Your task to perform on an android device: Search for vegetarian restaurants on Maps Image 0: 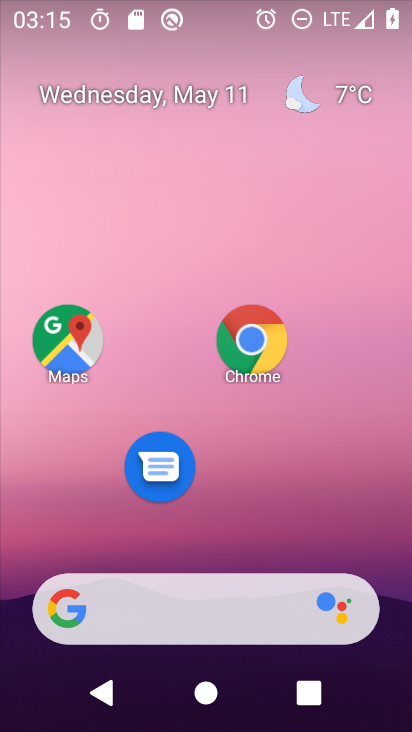
Step 0: press home button
Your task to perform on an android device: Search for vegetarian restaurants on Maps Image 1: 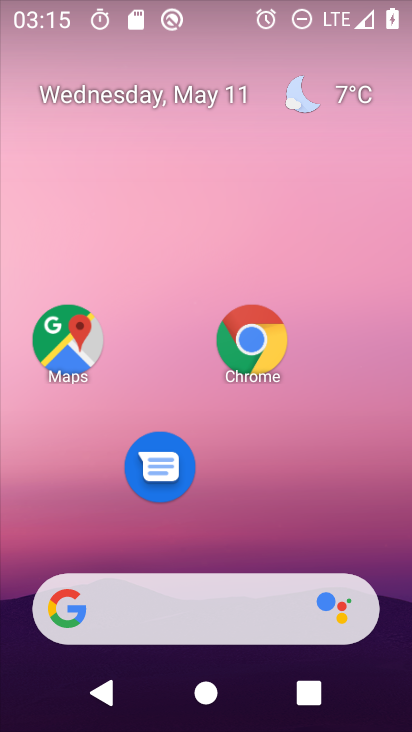
Step 1: drag from (165, 566) to (298, 146)
Your task to perform on an android device: Search for vegetarian restaurants on Maps Image 2: 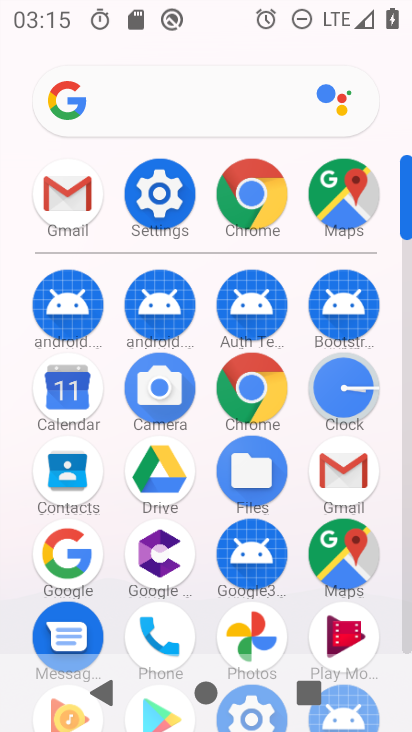
Step 2: click (348, 200)
Your task to perform on an android device: Search for vegetarian restaurants on Maps Image 3: 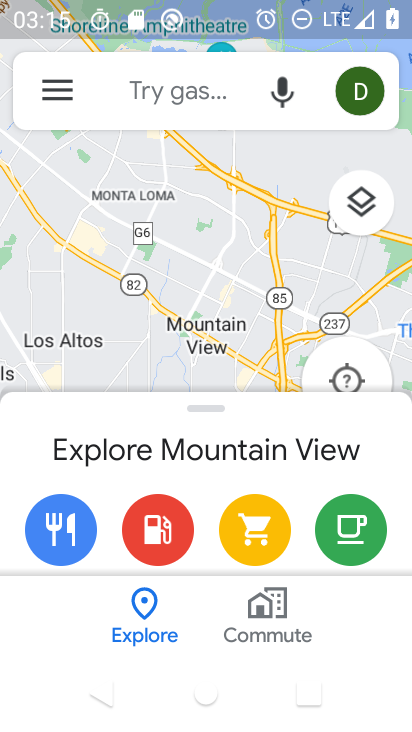
Step 3: click (187, 101)
Your task to perform on an android device: Search for vegetarian restaurants on Maps Image 4: 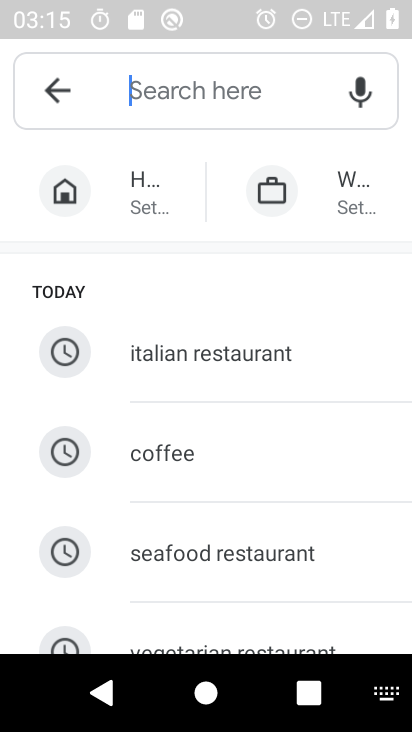
Step 4: drag from (198, 520) to (334, 143)
Your task to perform on an android device: Search for vegetarian restaurants on Maps Image 5: 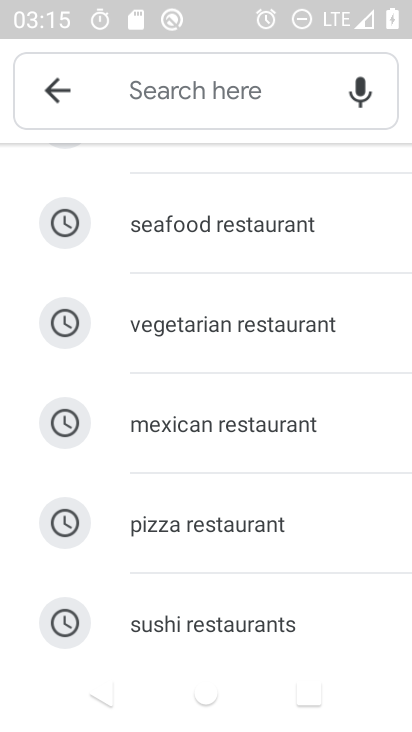
Step 5: click (238, 329)
Your task to perform on an android device: Search for vegetarian restaurants on Maps Image 6: 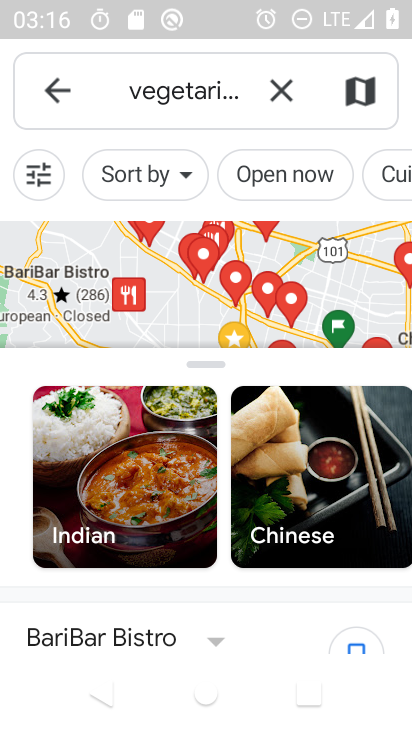
Step 6: task complete